Your task to perform on an android device: uninstall "Etsy: Buy & Sell Unique Items" Image 0: 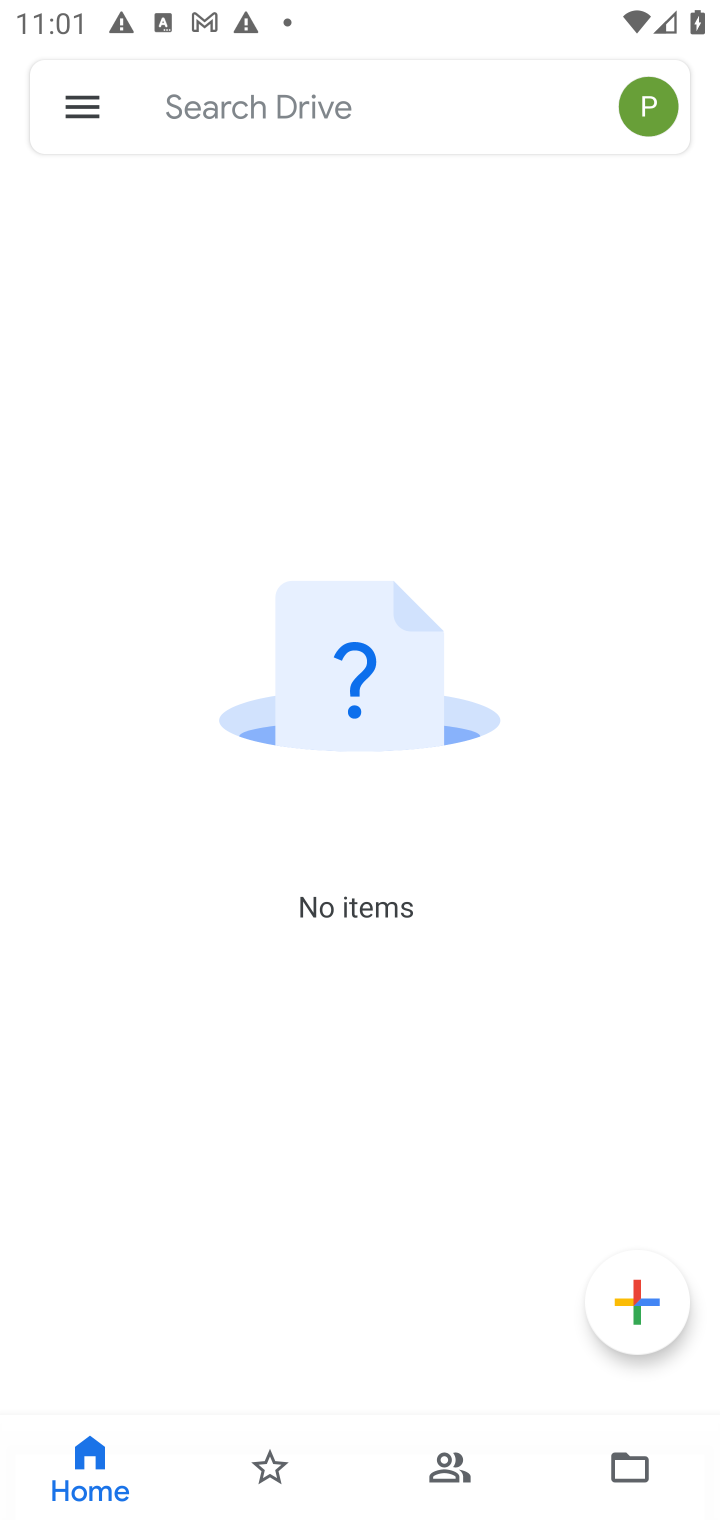
Step 0: press home button
Your task to perform on an android device: uninstall "Etsy: Buy & Sell Unique Items" Image 1: 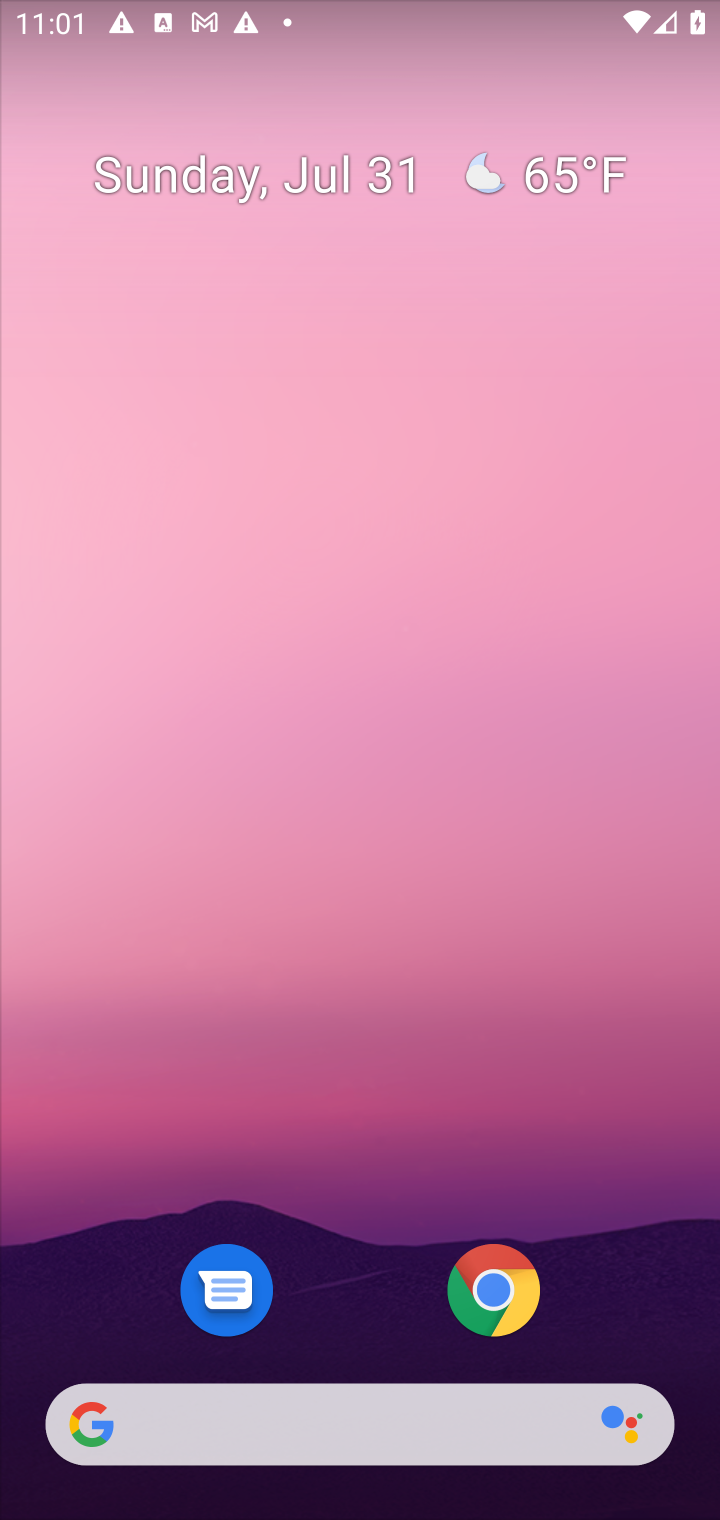
Step 1: drag from (633, 1271) to (558, 101)
Your task to perform on an android device: uninstall "Etsy: Buy & Sell Unique Items" Image 2: 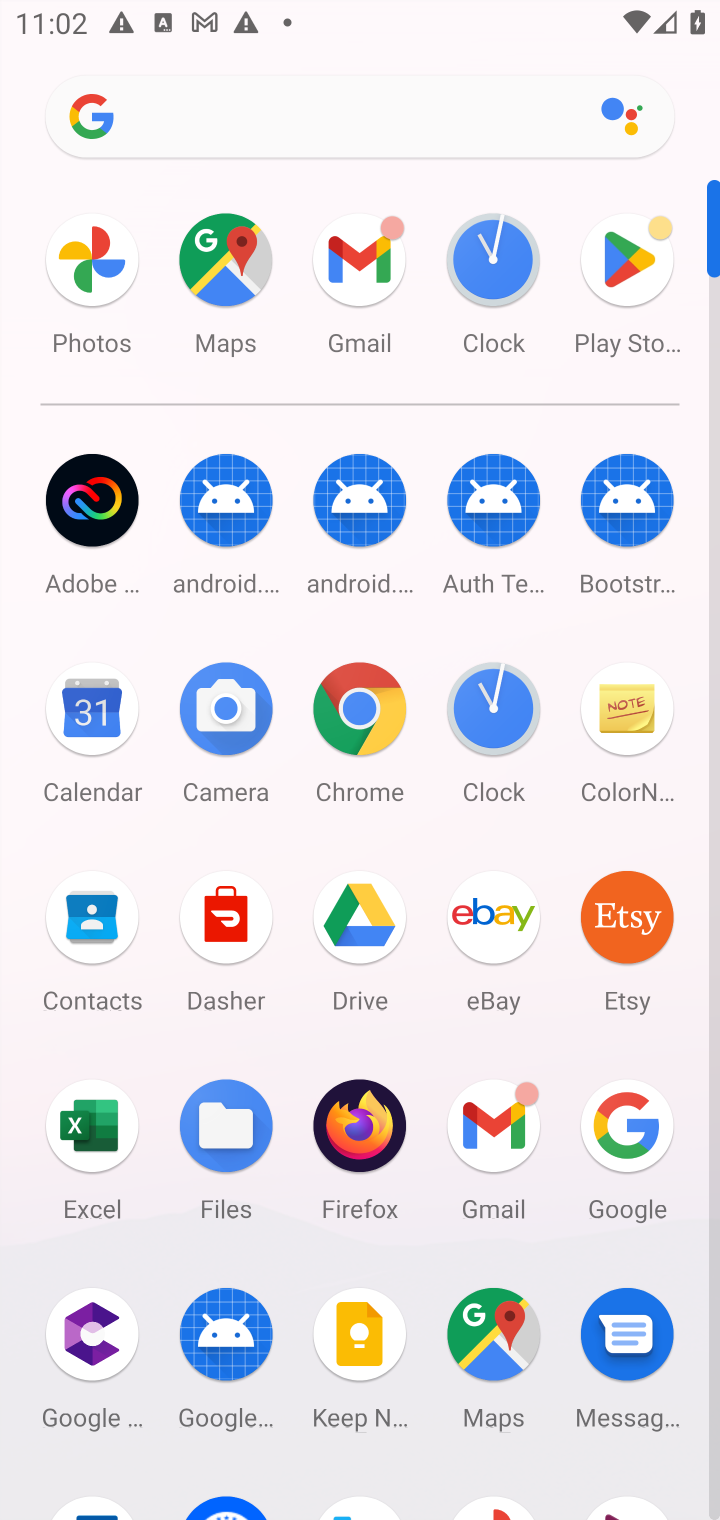
Step 2: click (628, 295)
Your task to perform on an android device: uninstall "Etsy: Buy & Sell Unique Items" Image 3: 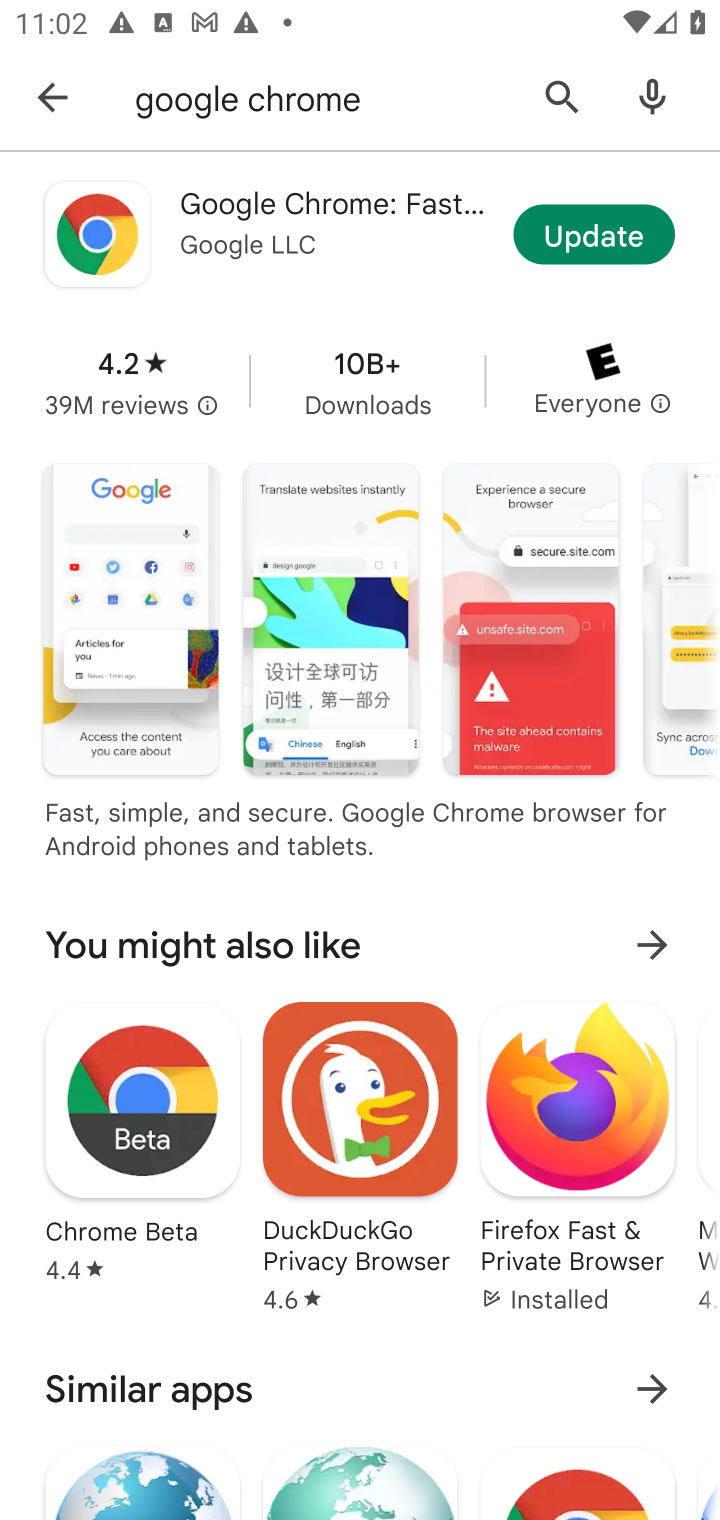
Step 3: click (552, 81)
Your task to perform on an android device: uninstall "Etsy: Buy & Sell Unique Items" Image 4: 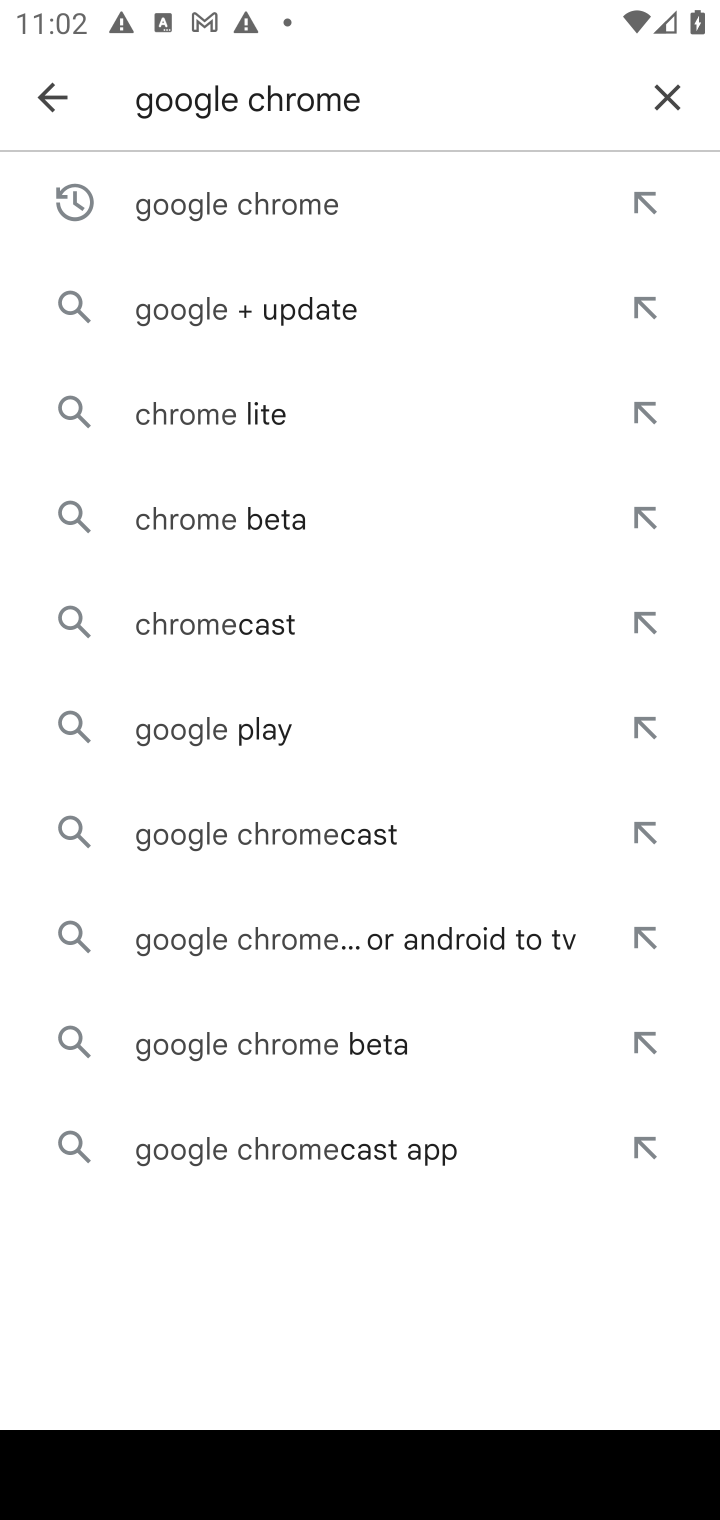
Step 4: click (660, 105)
Your task to perform on an android device: uninstall "Etsy: Buy & Sell Unique Items" Image 5: 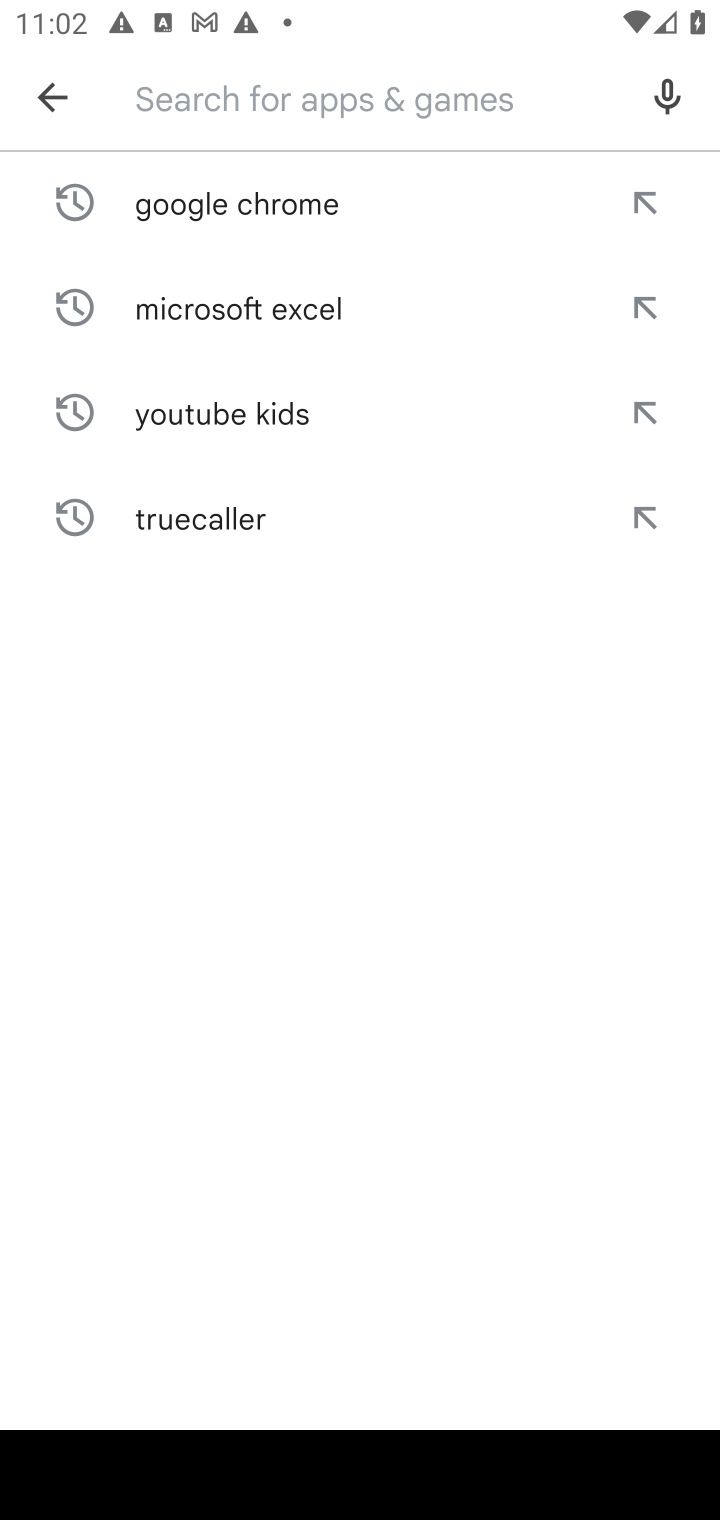
Step 5: click (443, 115)
Your task to perform on an android device: uninstall "Etsy: Buy & Sell Unique Items" Image 6: 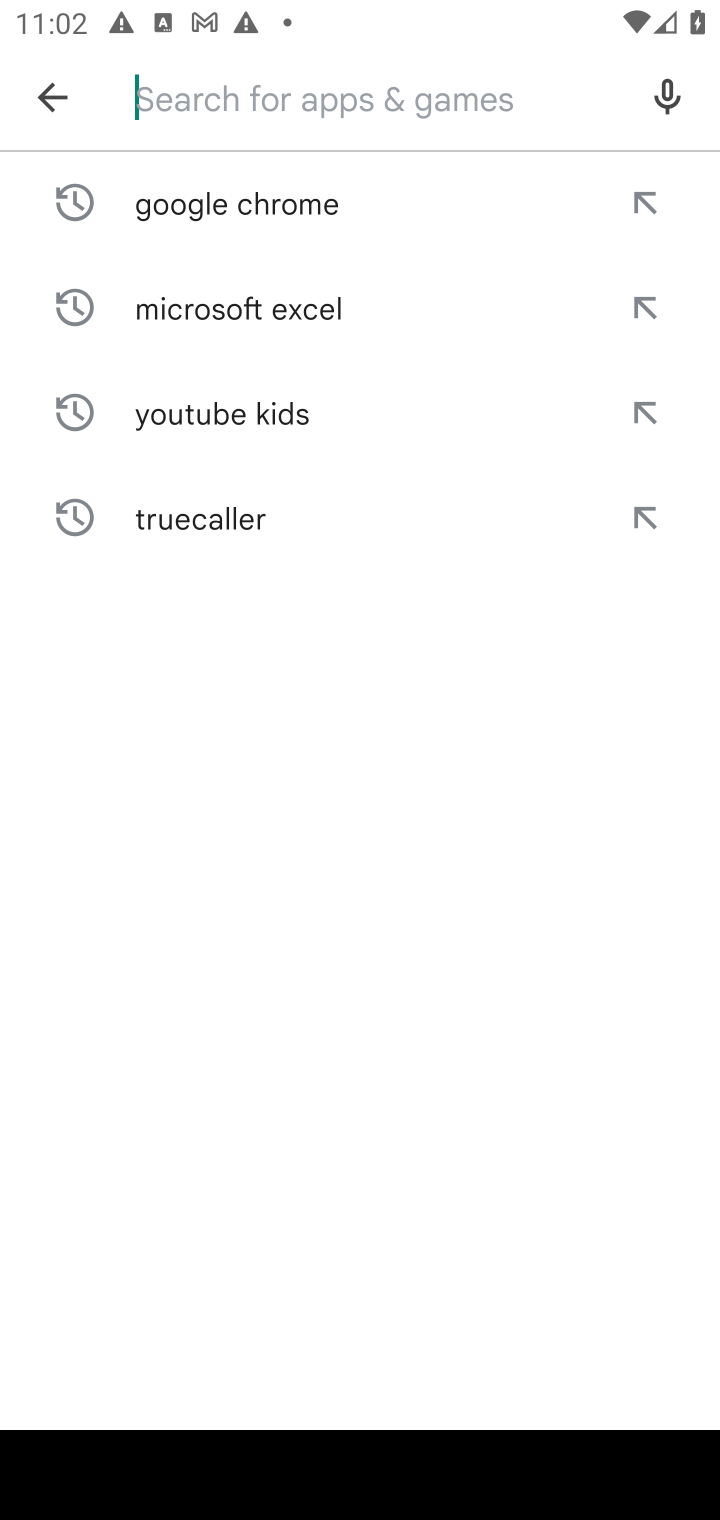
Step 6: type "etsy buy sell"
Your task to perform on an android device: uninstall "Etsy: Buy & Sell Unique Items" Image 7: 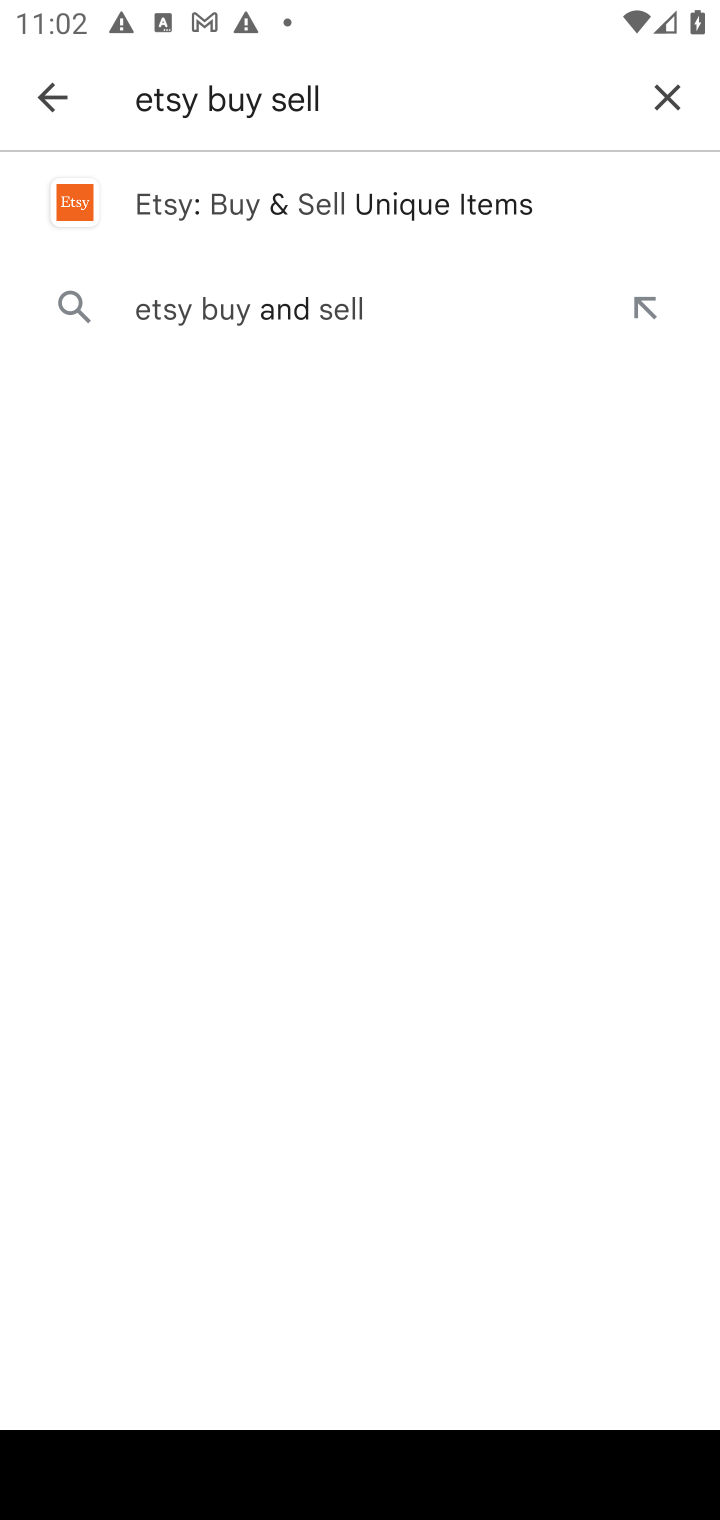
Step 7: click (390, 186)
Your task to perform on an android device: uninstall "Etsy: Buy & Sell Unique Items" Image 8: 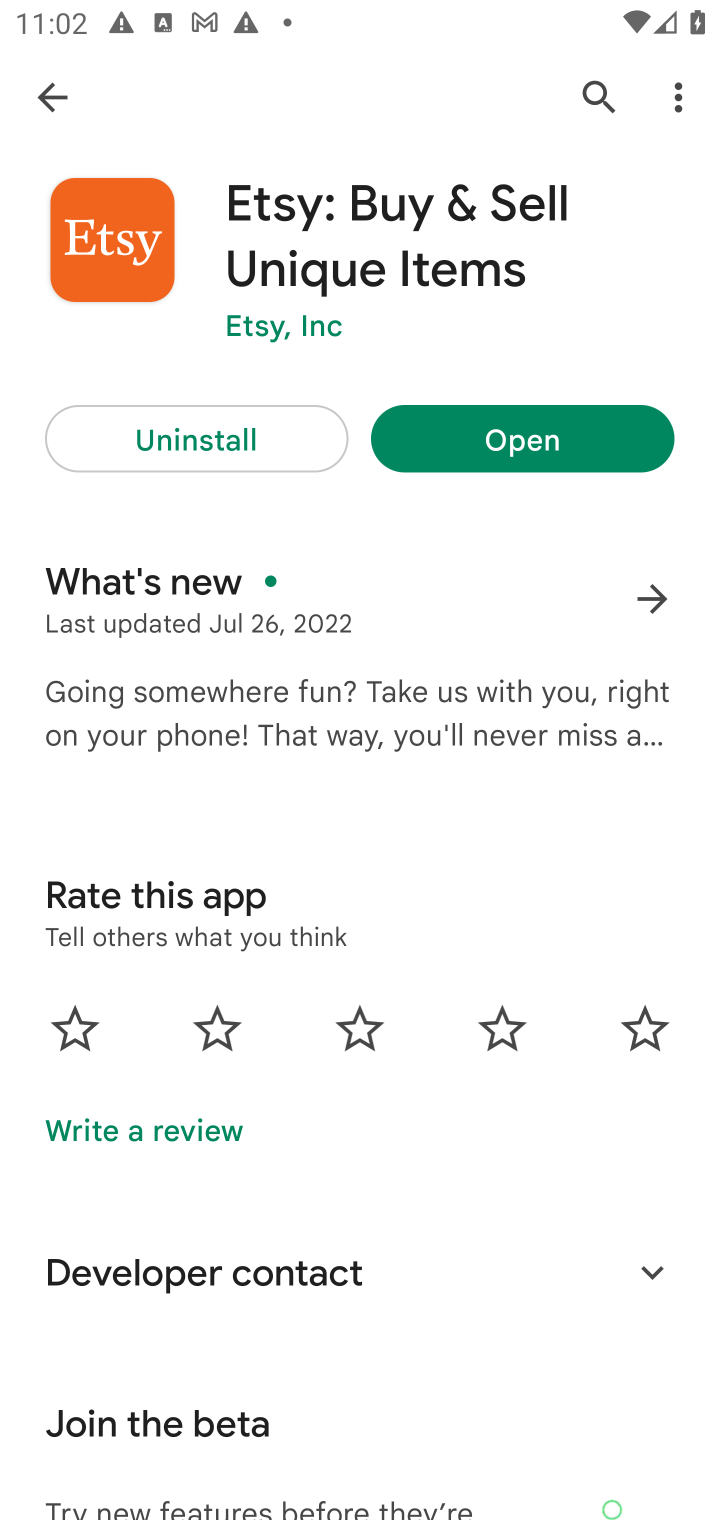
Step 8: click (251, 442)
Your task to perform on an android device: uninstall "Etsy: Buy & Sell Unique Items" Image 9: 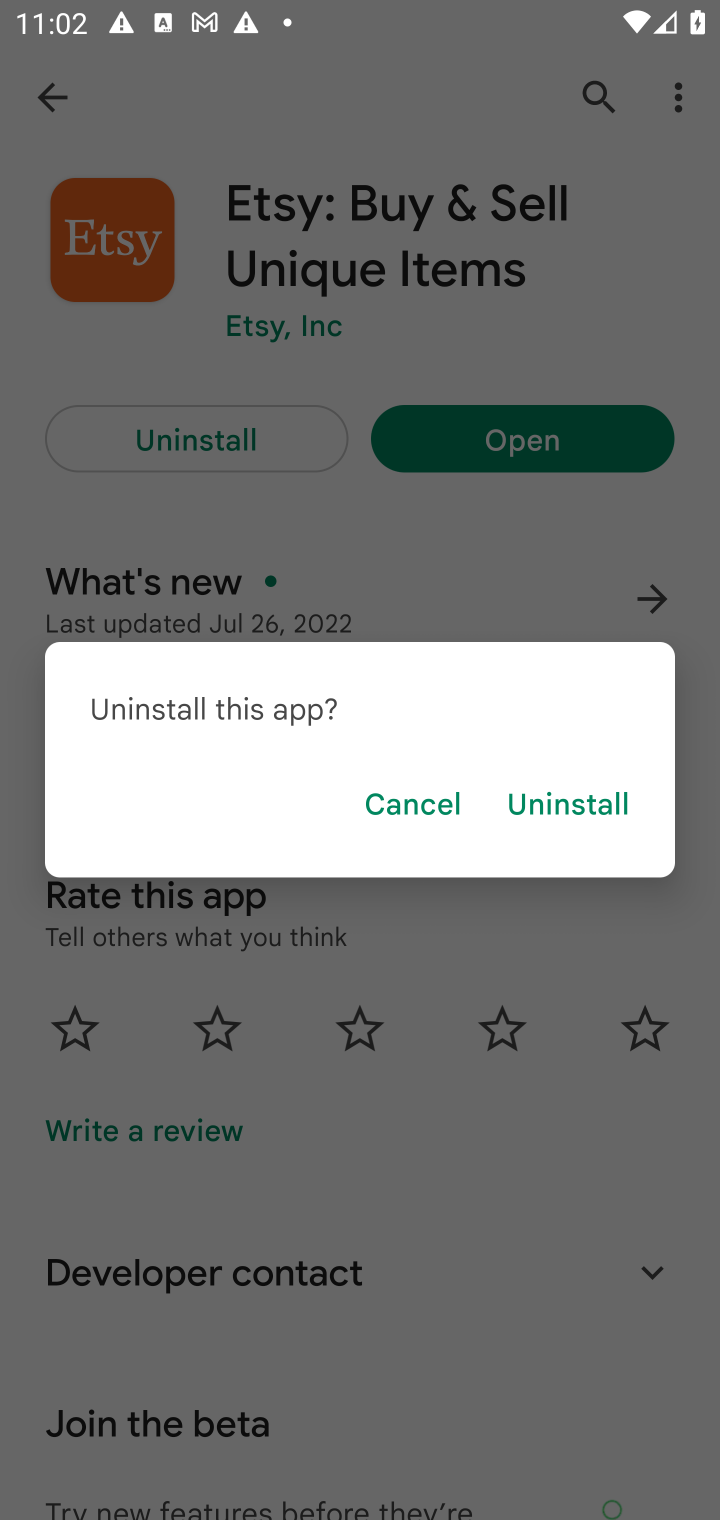
Step 9: click (558, 820)
Your task to perform on an android device: uninstall "Etsy: Buy & Sell Unique Items" Image 10: 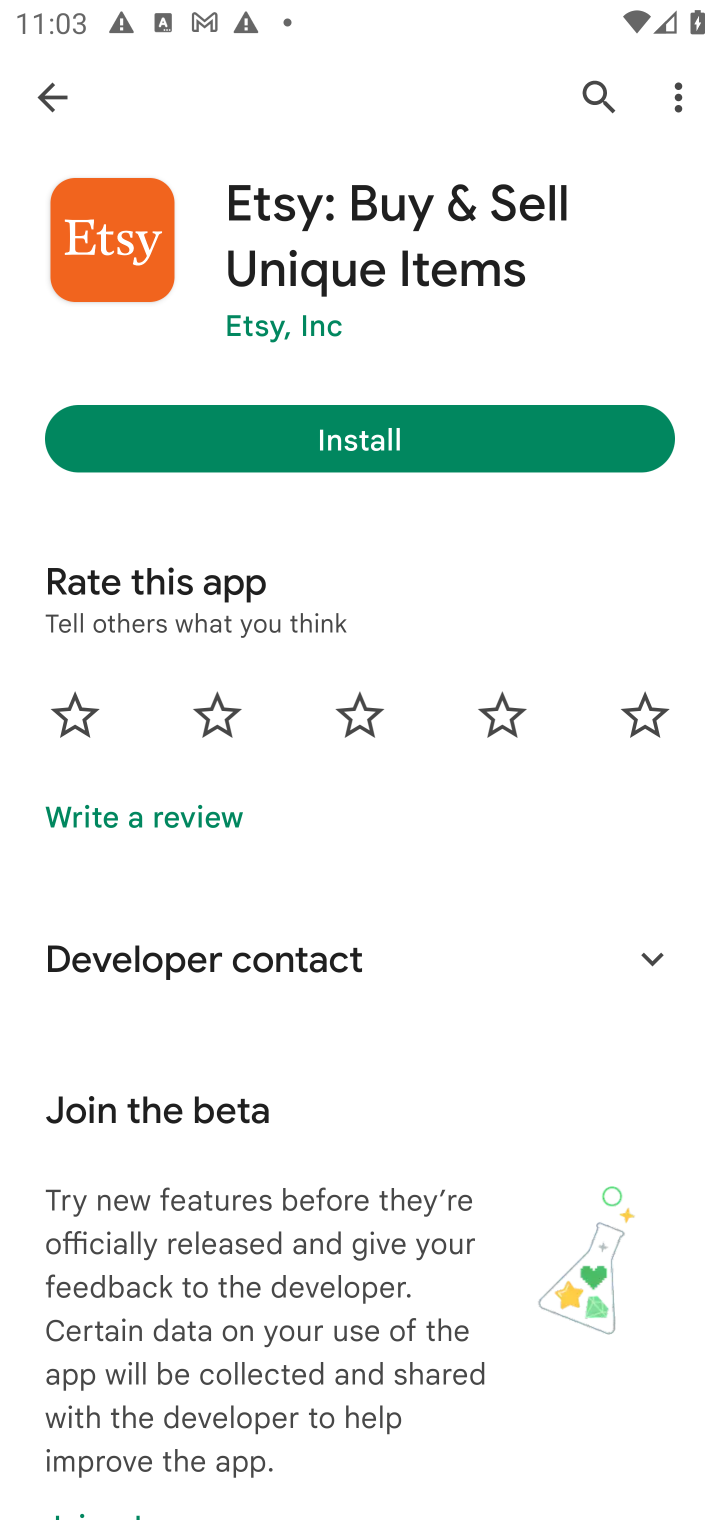
Step 10: task complete